Your task to perform on an android device: toggle improve location accuracy Image 0: 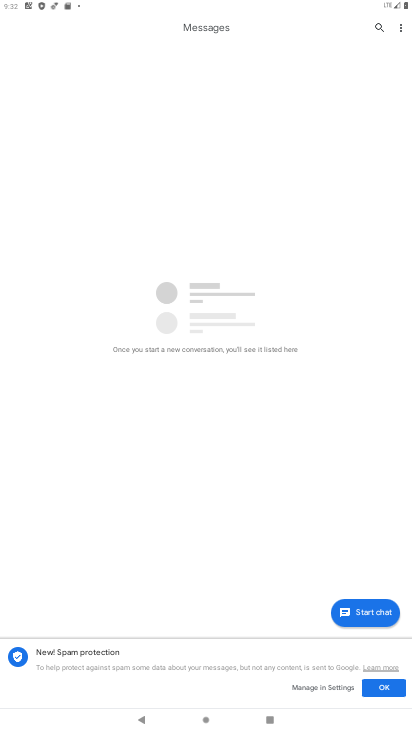
Step 0: press home button
Your task to perform on an android device: toggle improve location accuracy Image 1: 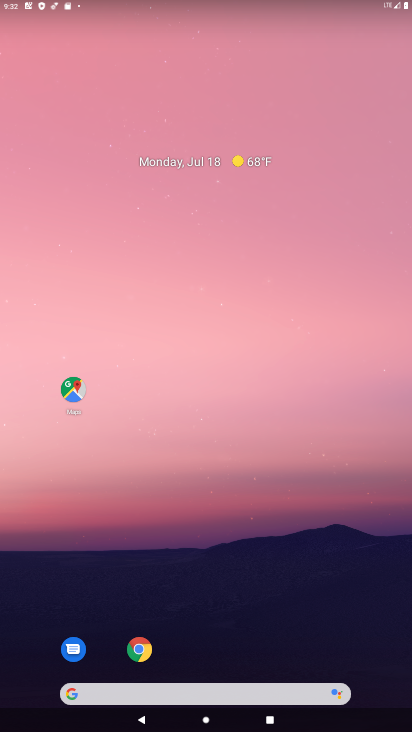
Step 1: drag from (165, 698) to (195, 25)
Your task to perform on an android device: toggle improve location accuracy Image 2: 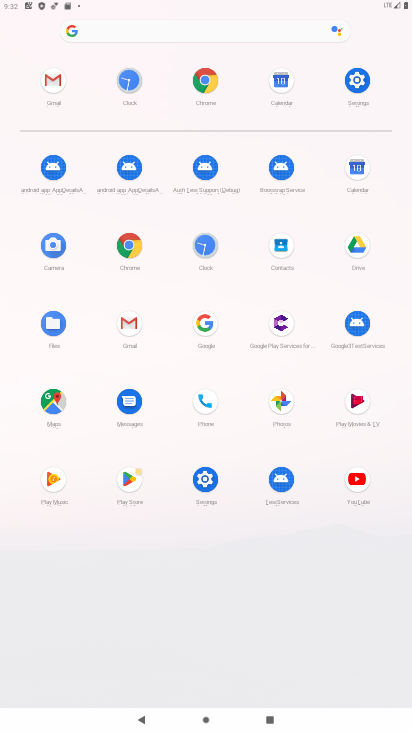
Step 2: click (352, 80)
Your task to perform on an android device: toggle improve location accuracy Image 3: 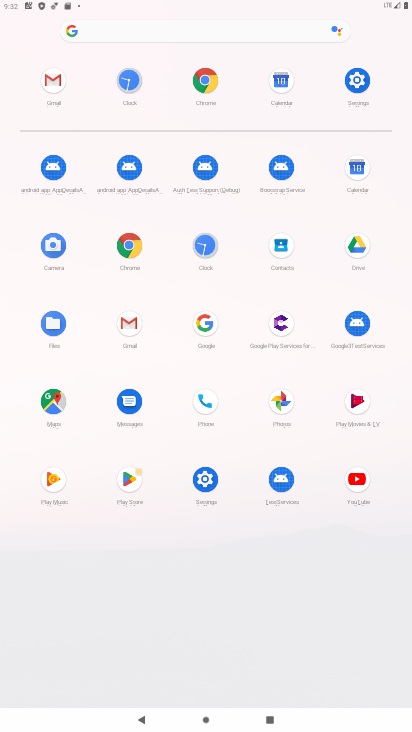
Step 3: click (352, 80)
Your task to perform on an android device: toggle improve location accuracy Image 4: 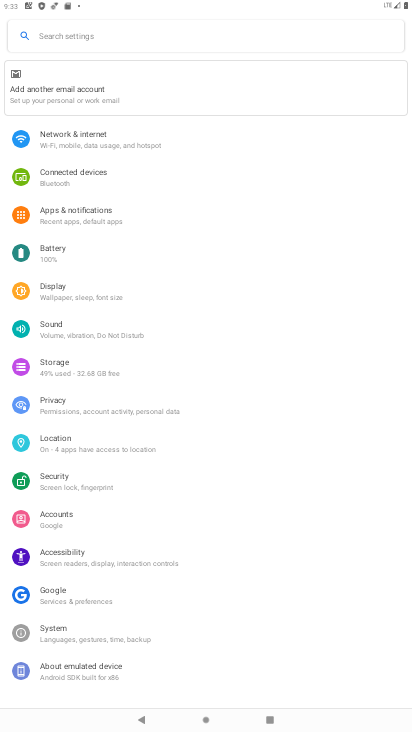
Step 4: click (81, 438)
Your task to perform on an android device: toggle improve location accuracy Image 5: 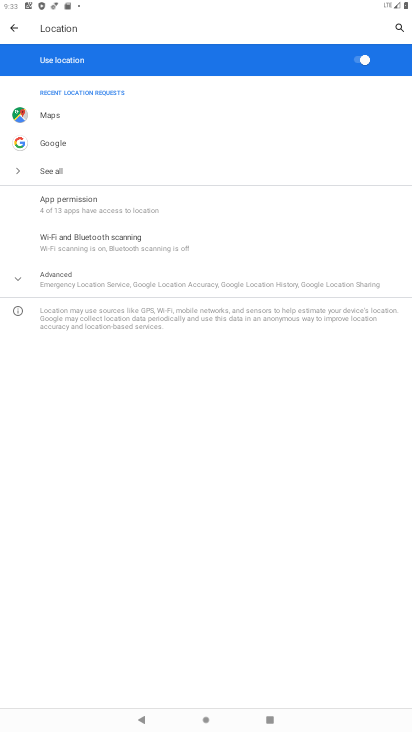
Step 5: click (152, 285)
Your task to perform on an android device: toggle improve location accuracy Image 6: 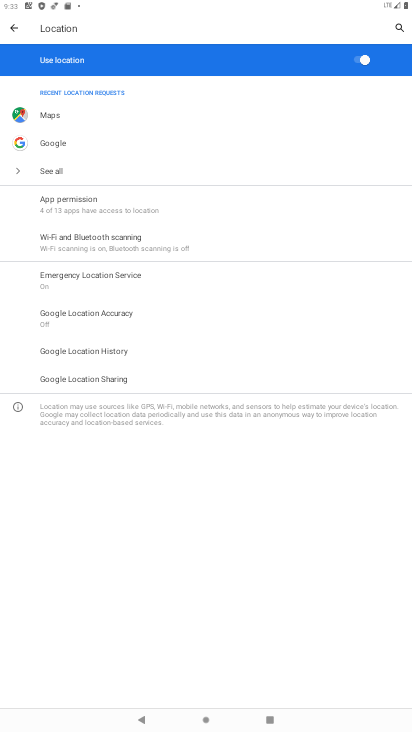
Step 6: click (104, 312)
Your task to perform on an android device: toggle improve location accuracy Image 7: 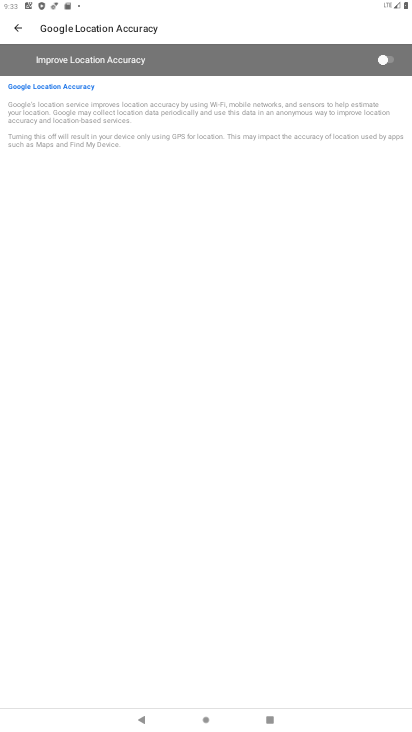
Step 7: click (391, 56)
Your task to perform on an android device: toggle improve location accuracy Image 8: 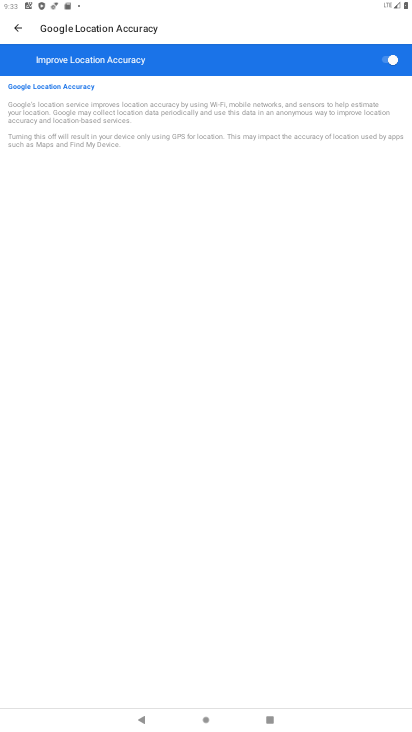
Step 8: task complete